Your task to perform on an android device: move an email to a new category in the gmail app Image 0: 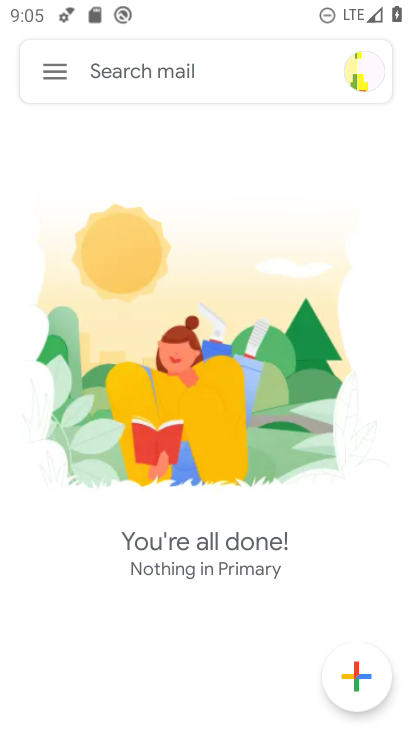
Step 0: press home button
Your task to perform on an android device: move an email to a new category in the gmail app Image 1: 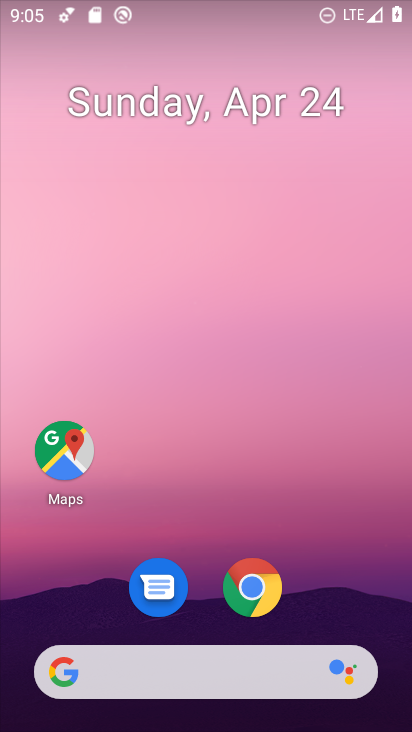
Step 1: drag from (369, 581) to (372, 202)
Your task to perform on an android device: move an email to a new category in the gmail app Image 2: 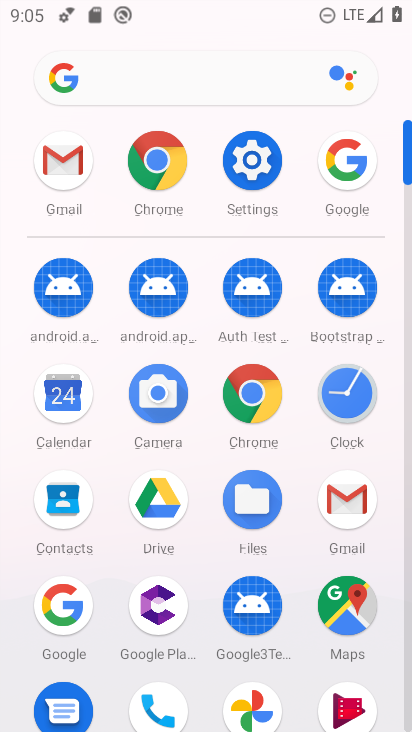
Step 2: click (347, 498)
Your task to perform on an android device: move an email to a new category in the gmail app Image 3: 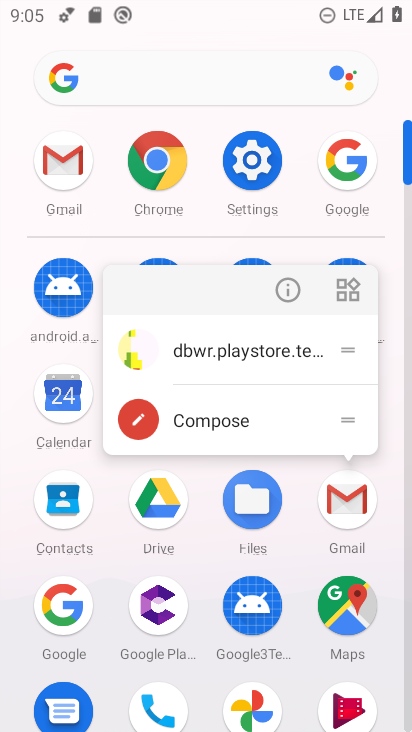
Step 3: click (345, 502)
Your task to perform on an android device: move an email to a new category in the gmail app Image 4: 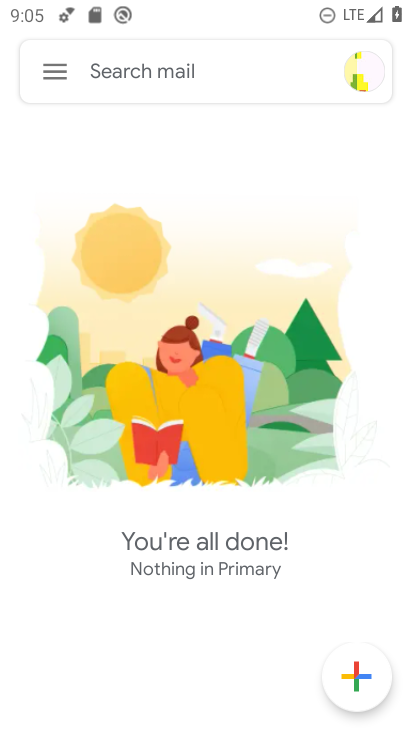
Step 4: click (46, 73)
Your task to perform on an android device: move an email to a new category in the gmail app Image 5: 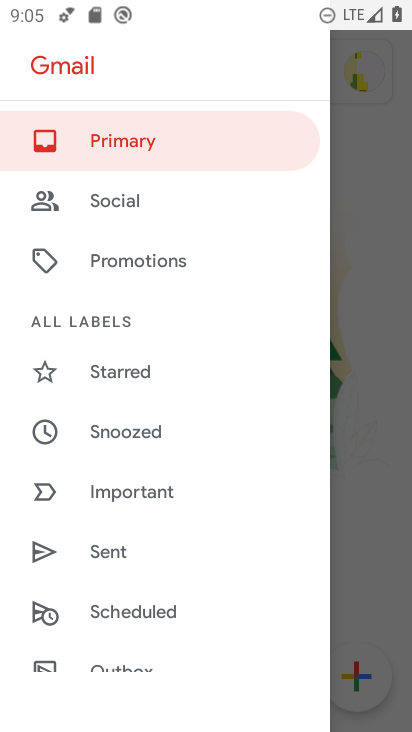
Step 5: drag from (201, 541) to (182, 336)
Your task to perform on an android device: move an email to a new category in the gmail app Image 6: 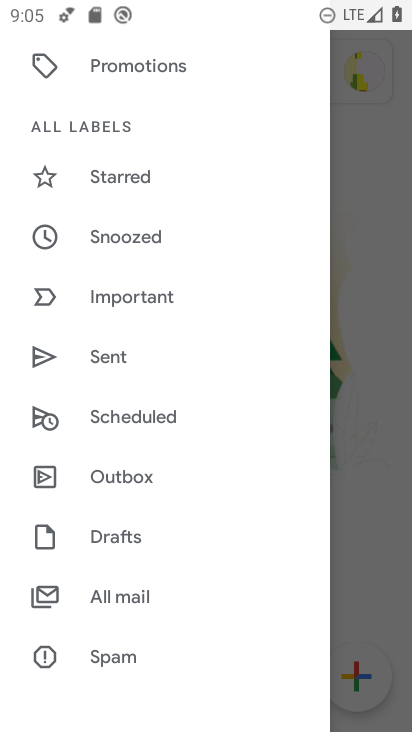
Step 6: click (150, 597)
Your task to perform on an android device: move an email to a new category in the gmail app Image 7: 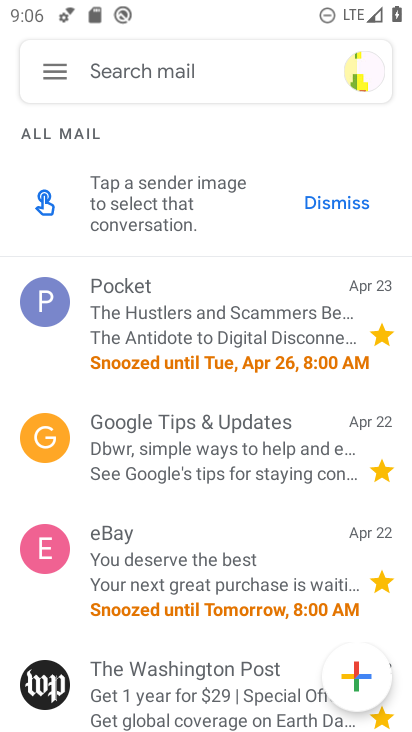
Step 7: click (277, 309)
Your task to perform on an android device: move an email to a new category in the gmail app Image 8: 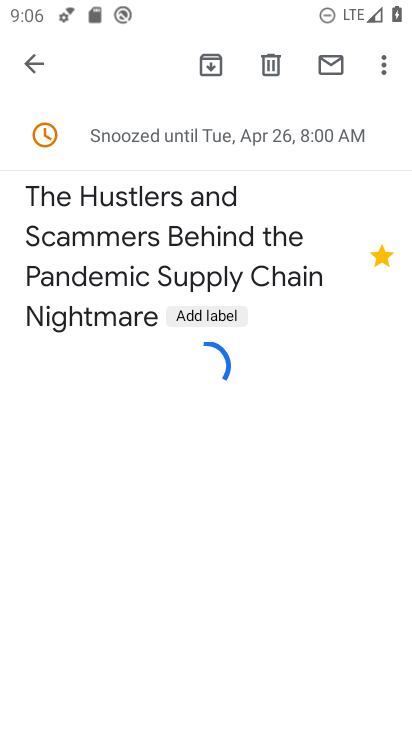
Step 8: click (383, 56)
Your task to perform on an android device: move an email to a new category in the gmail app Image 9: 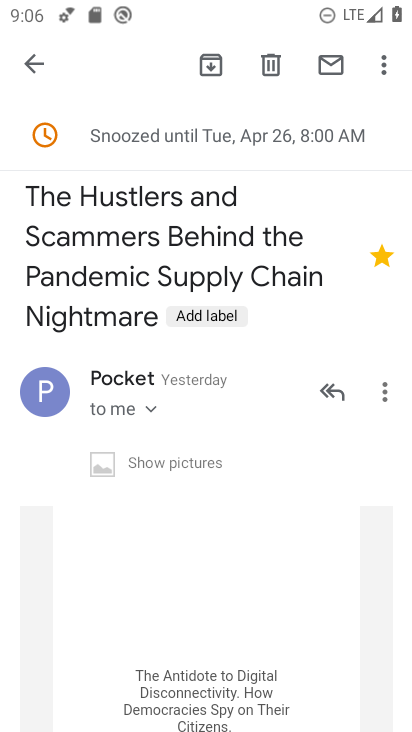
Step 9: click (382, 69)
Your task to perform on an android device: move an email to a new category in the gmail app Image 10: 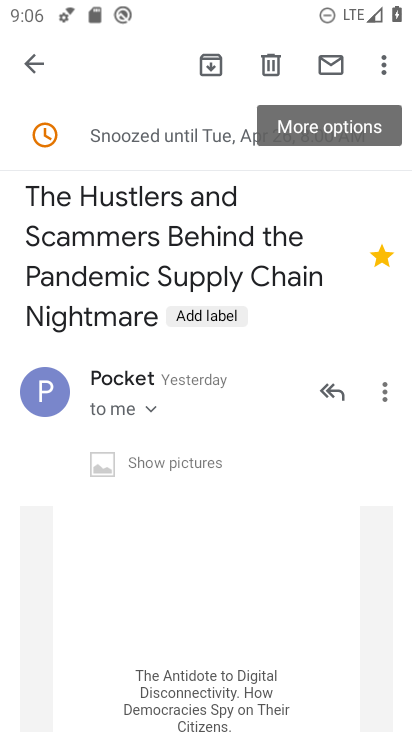
Step 10: click (381, 70)
Your task to perform on an android device: move an email to a new category in the gmail app Image 11: 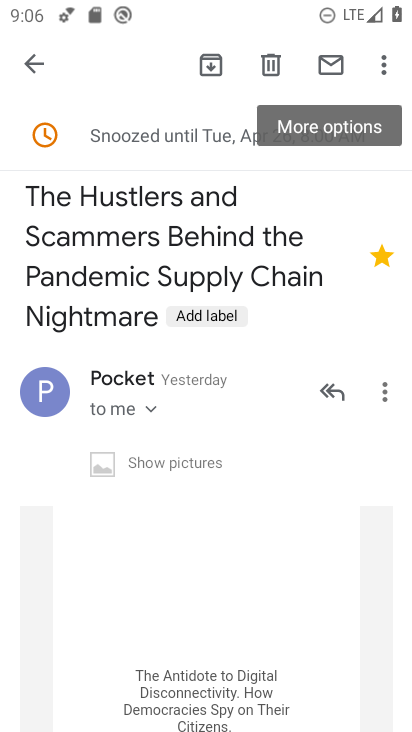
Step 11: click (383, 78)
Your task to perform on an android device: move an email to a new category in the gmail app Image 12: 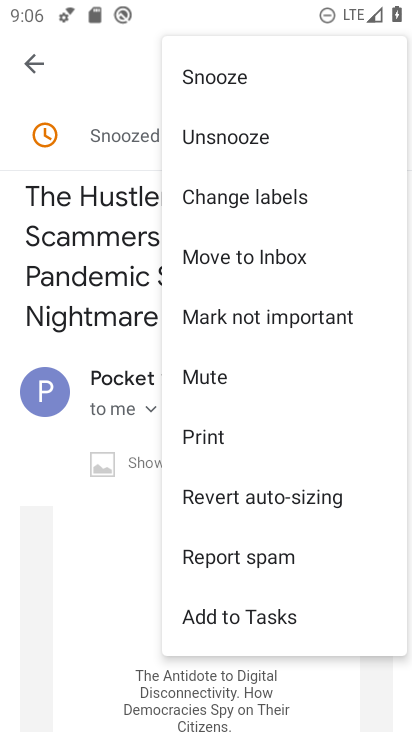
Step 12: click (251, 258)
Your task to perform on an android device: move an email to a new category in the gmail app Image 13: 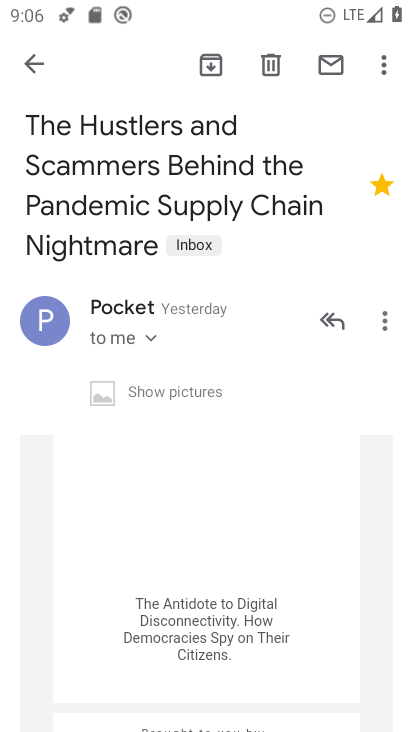
Step 13: task complete